Your task to perform on an android device: Open maps Image 0: 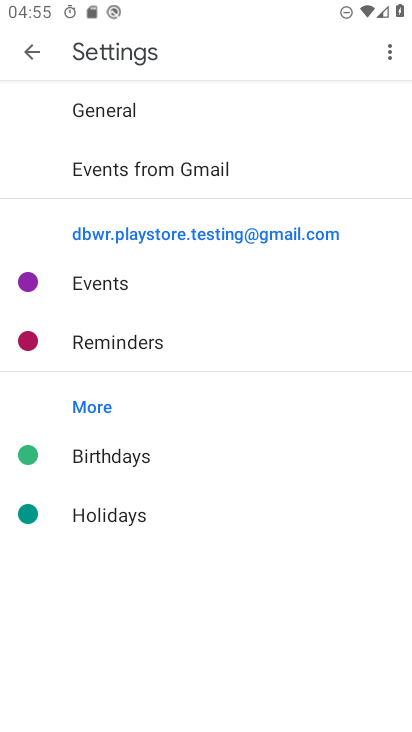
Step 0: press home button
Your task to perform on an android device: Open maps Image 1: 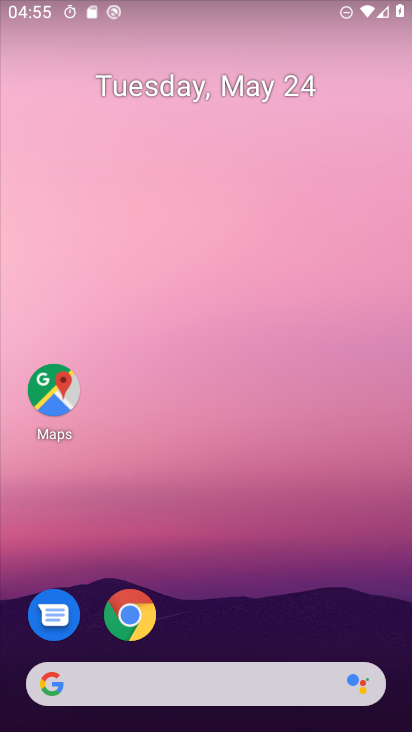
Step 1: click (65, 380)
Your task to perform on an android device: Open maps Image 2: 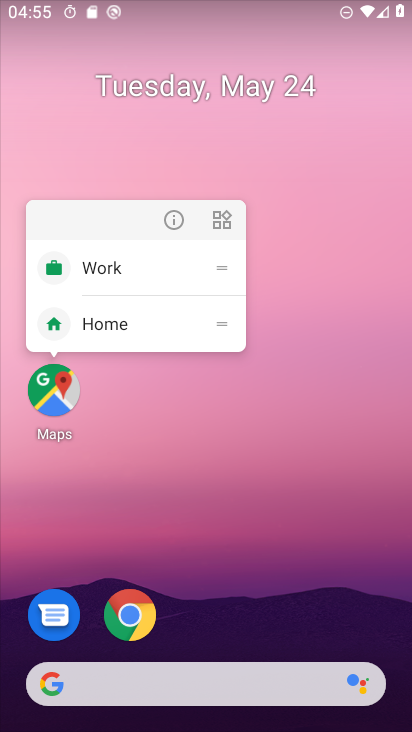
Step 2: click (48, 394)
Your task to perform on an android device: Open maps Image 3: 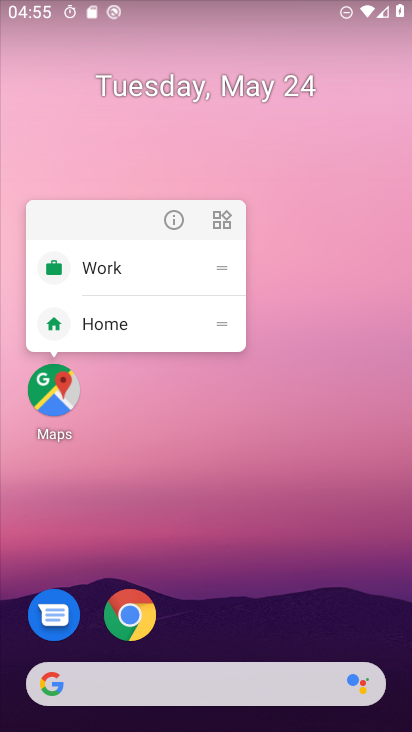
Step 3: click (48, 394)
Your task to perform on an android device: Open maps Image 4: 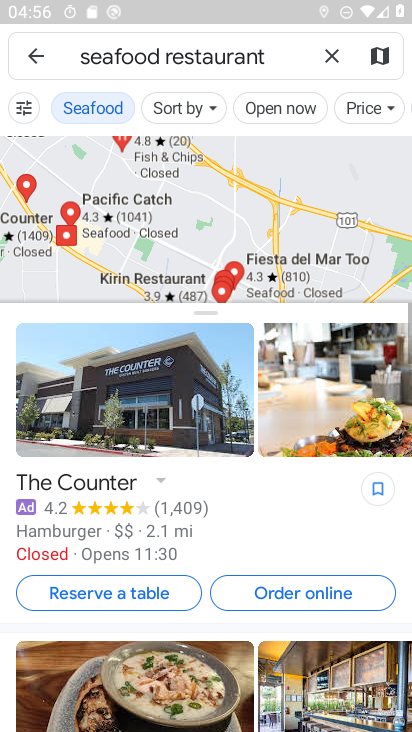
Step 4: task complete